Your task to perform on an android device: Go to Yahoo.com Image 0: 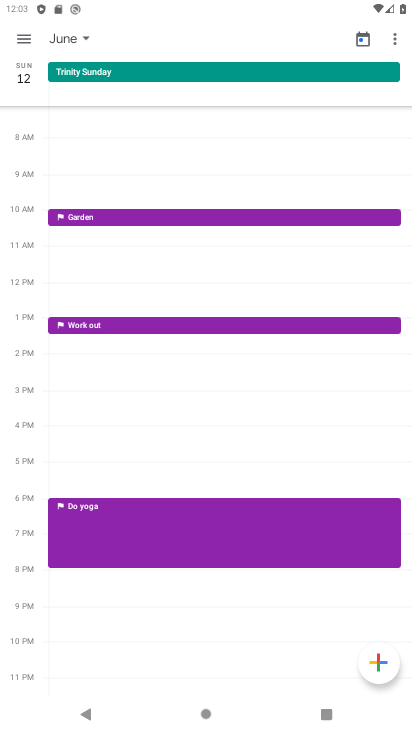
Step 0: press home button
Your task to perform on an android device: Go to Yahoo.com Image 1: 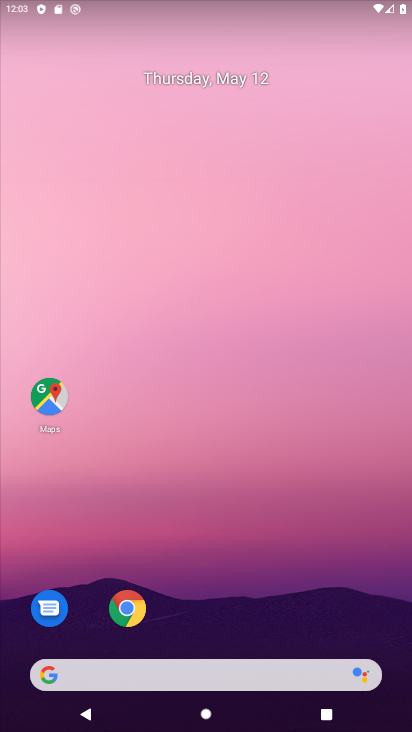
Step 1: click (139, 611)
Your task to perform on an android device: Go to Yahoo.com Image 2: 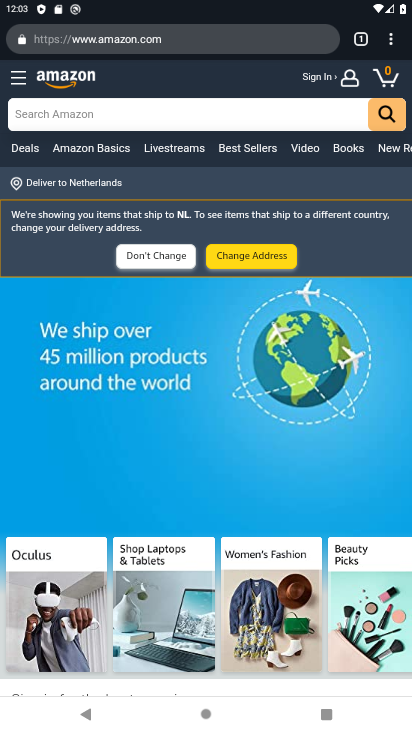
Step 2: click (117, 41)
Your task to perform on an android device: Go to Yahoo.com Image 3: 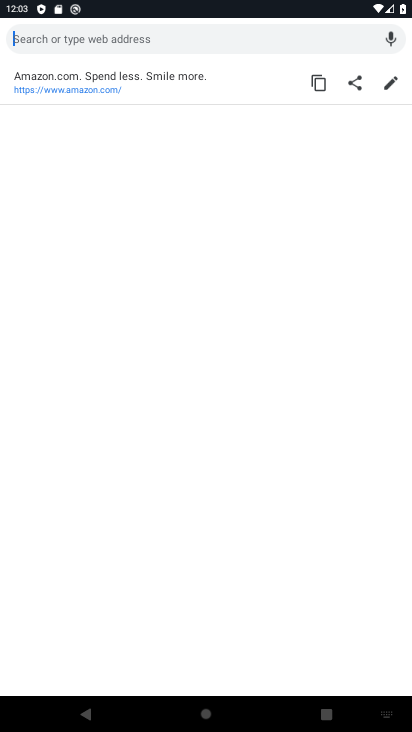
Step 3: type "yahoo.com"
Your task to perform on an android device: Go to Yahoo.com Image 4: 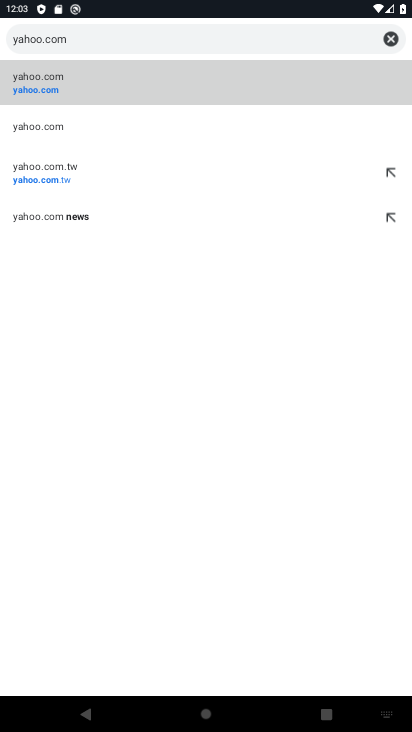
Step 4: click (32, 74)
Your task to perform on an android device: Go to Yahoo.com Image 5: 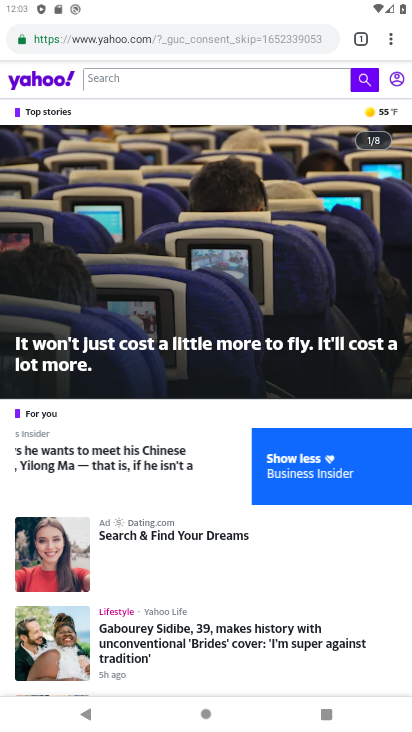
Step 5: task complete